Your task to perform on an android device: allow notifications from all sites in the chrome app Image 0: 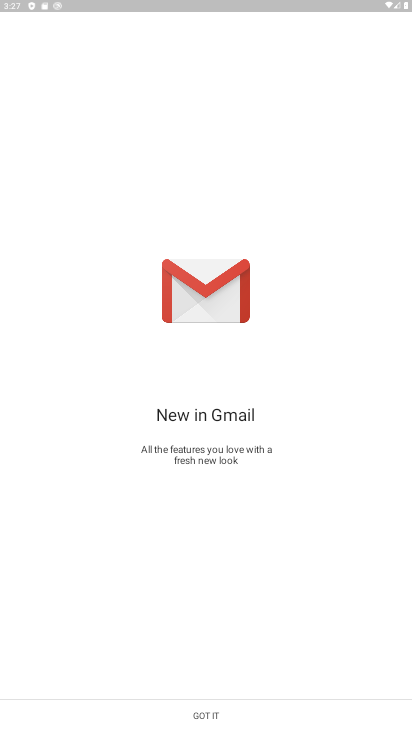
Step 0: press home button
Your task to perform on an android device: allow notifications from all sites in the chrome app Image 1: 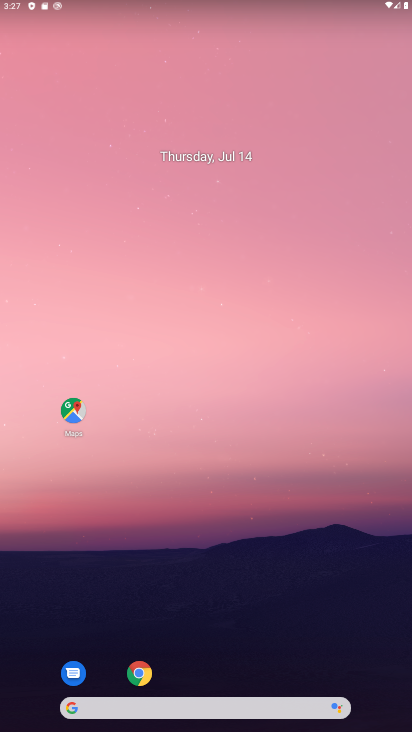
Step 1: click (141, 670)
Your task to perform on an android device: allow notifications from all sites in the chrome app Image 2: 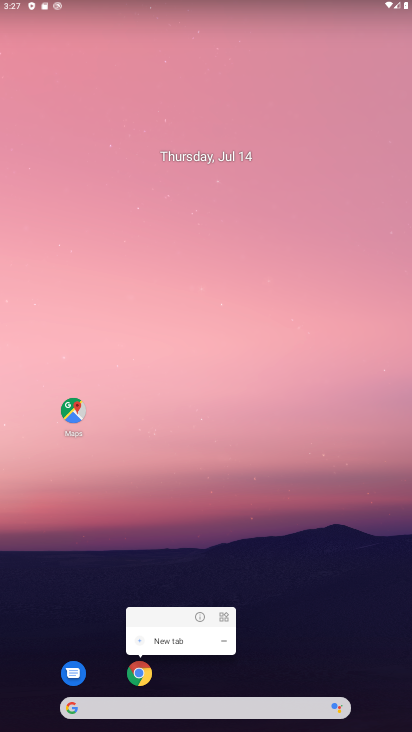
Step 2: click (139, 674)
Your task to perform on an android device: allow notifications from all sites in the chrome app Image 3: 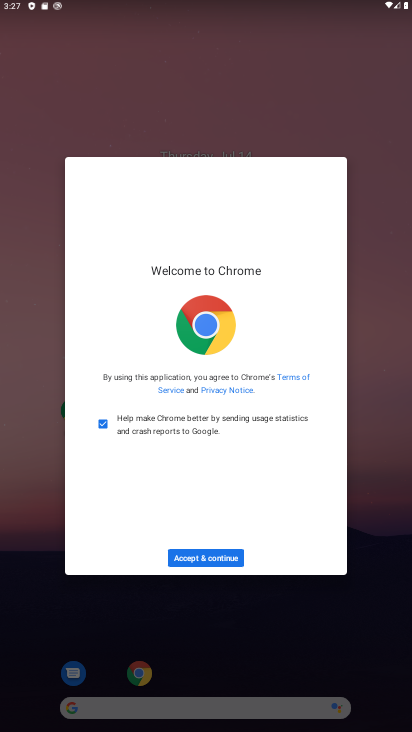
Step 3: click (213, 558)
Your task to perform on an android device: allow notifications from all sites in the chrome app Image 4: 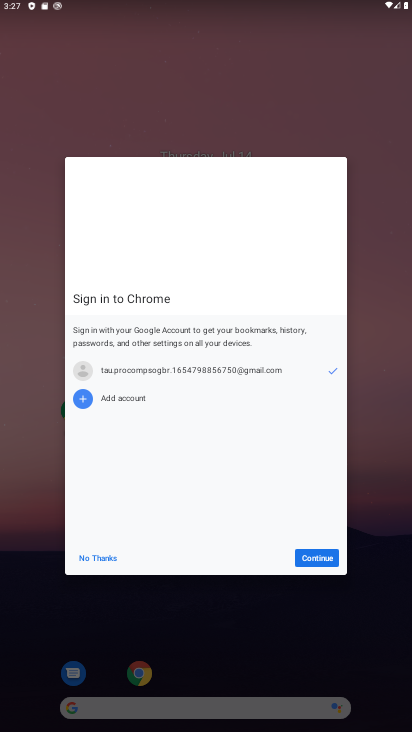
Step 4: click (317, 554)
Your task to perform on an android device: allow notifications from all sites in the chrome app Image 5: 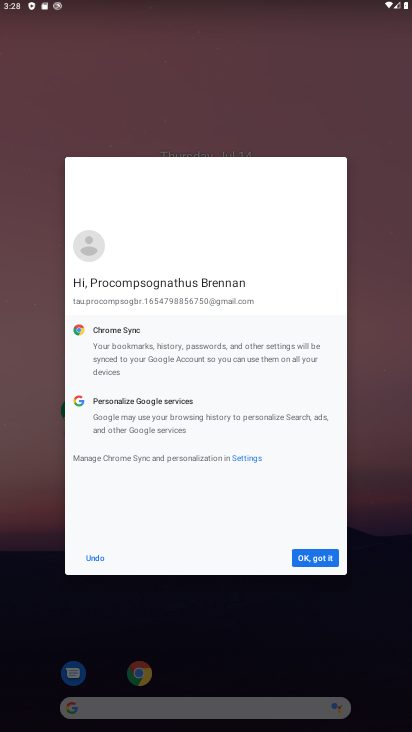
Step 5: click (304, 560)
Your task to perform on an android device: allow notifications from all sites in the chrome app Image 6: 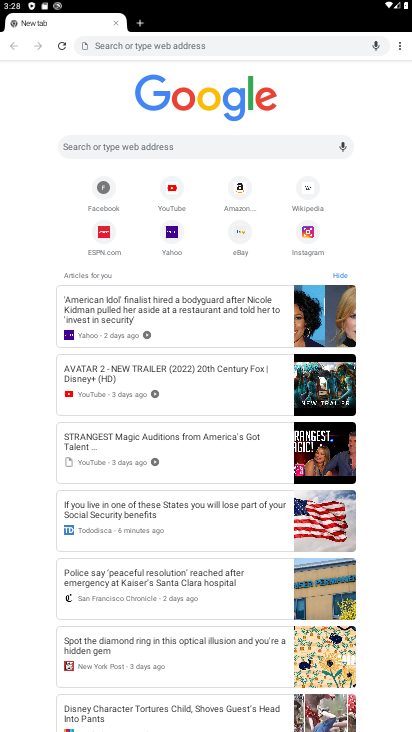
Step 6: click (400, 44)
Your task to perform on an android device: allow notifications from all sites in the chrome app Image 7: 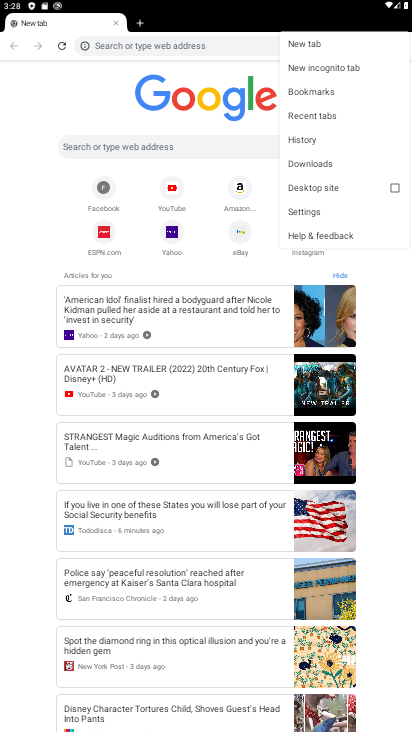
Step 7: click (323, 212)
Your task to perform on an android device: allow notifications from all sites in the chrome app Image 8: 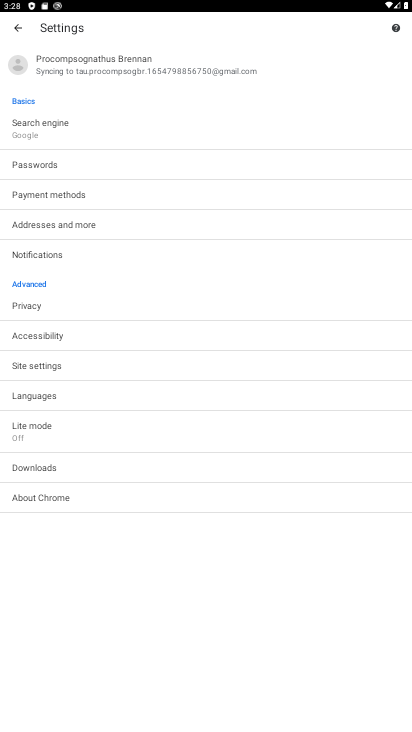
Step 8: click (68, 363)
Your task to perform on an android device: allow notifications from all sites in the chrome app Image 9: 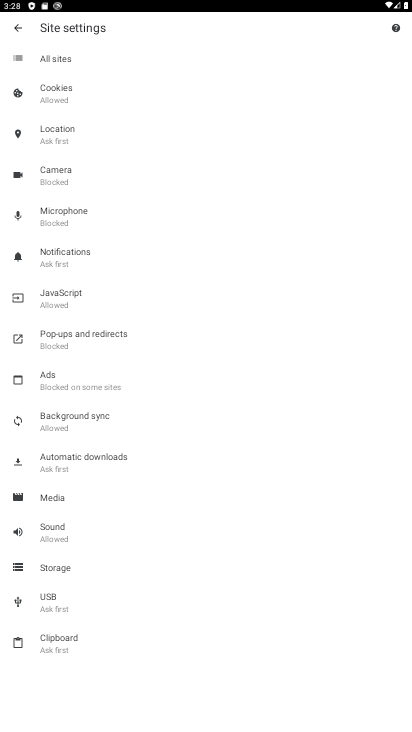
Step 9: click (79, 55)
Your task to perform on an android device: allow notifications from all sites in the chrome app Image 10: 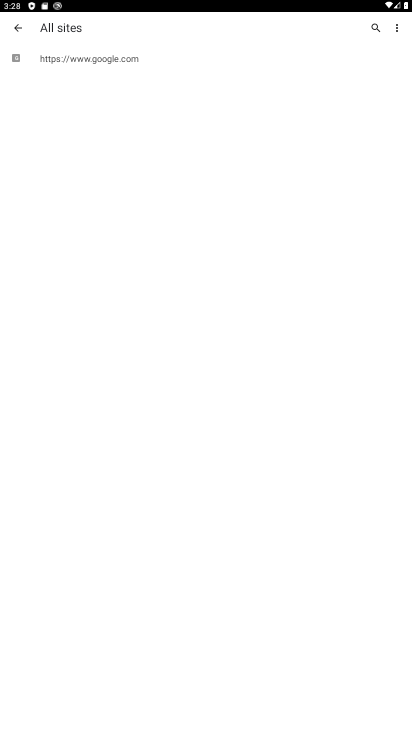
Step 10: click (106, 59)
Your task to perform on an android device: allow notifications from all sites in the chrome app Image 11: 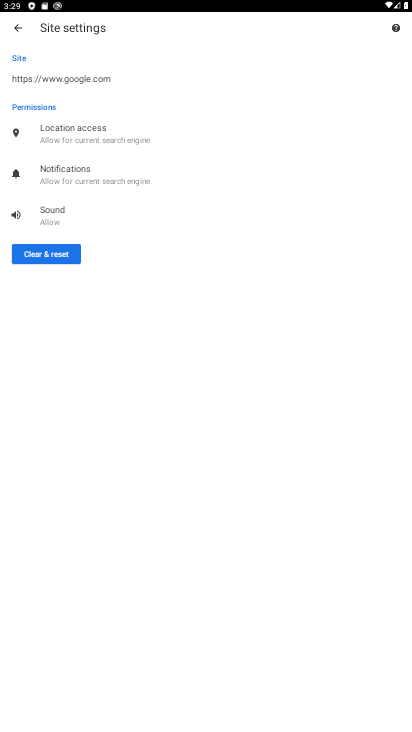
Step 11: task complete